Your task to perform on an android device: Open Chrome and go to the settings page Image 0: 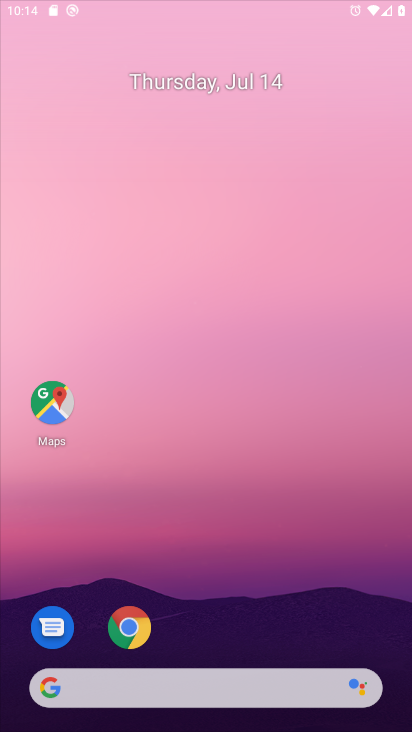
Step 0: press home button
Your task to perform on an android device: Open Chrome and go to the settings page Image 1: 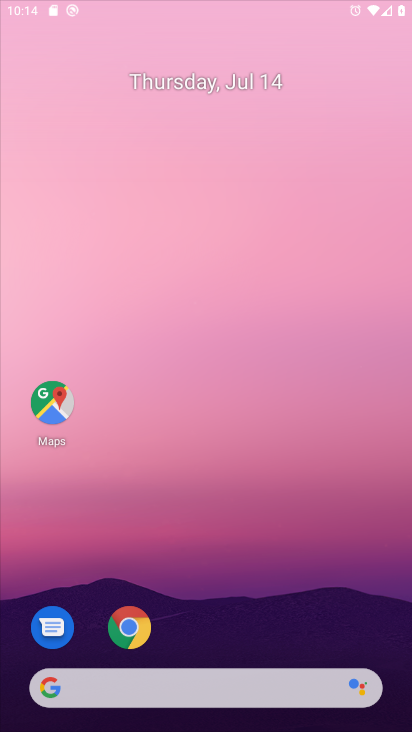
Step 1: click (270, 166)
Your task to perform on an android device: Open Chrome and go to the settings page Image 2: 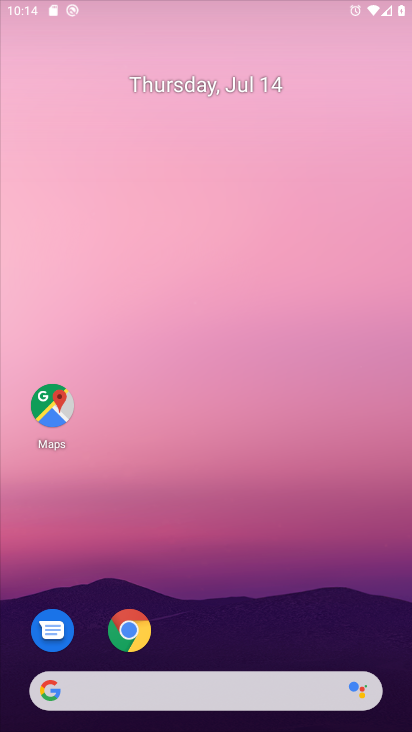
Step 2: drag from (189, 664) to (292, 213)
Your task to perform on an android device: Open Chrome and go to the settings page Image 3: 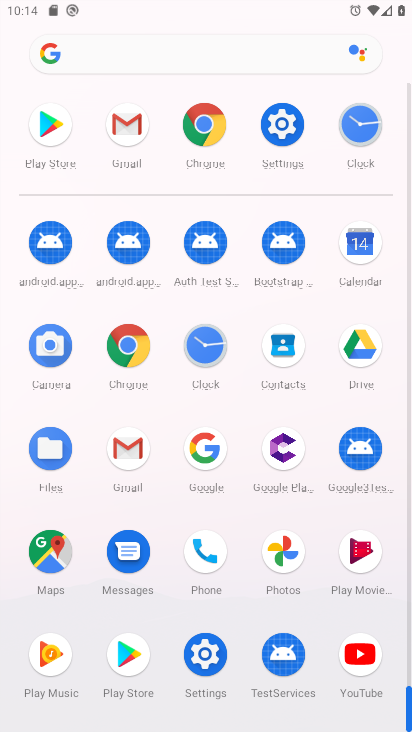
Step 3: click (127, 341)
Your task to perform on an android device: Open Chrome and go to the settings page Image 4: 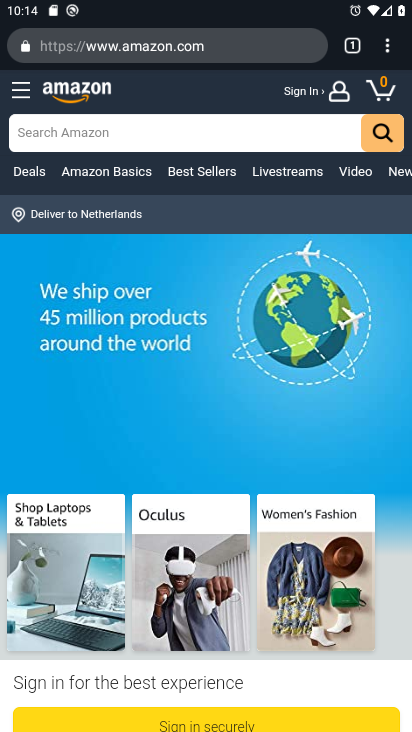
Step 4: click (385, 47)
Your task to perform on an android device: Open Chrome and go to the settings page Image 5: 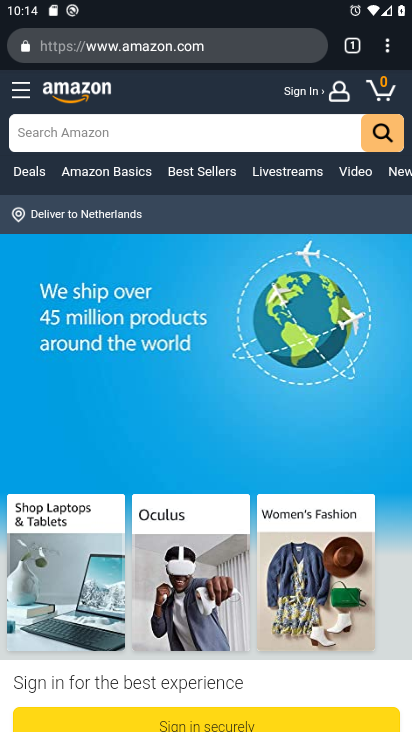
Step 5: task complete